Your task to perform on an android device: Search for seafood restaurants on Google Maps Image 0: 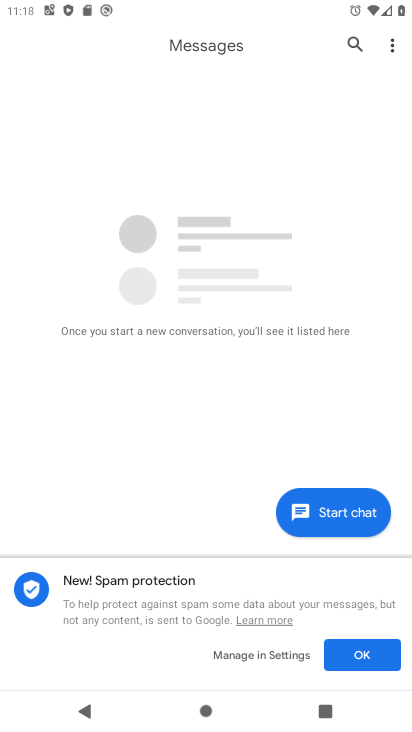
Step 0: press home button
Your task to perform on an android device: Search for seafood restaurants on Google Maps Image 1: 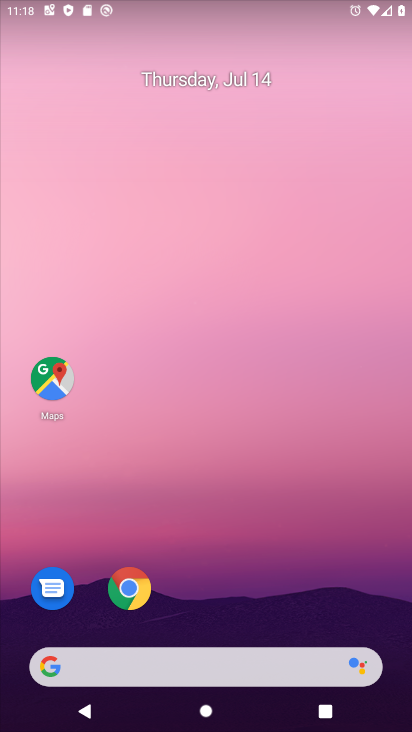
Step 1: click (51, 381)
Your task to perform on an android device: Search for seafood restaurants on Google Maps Image 2: 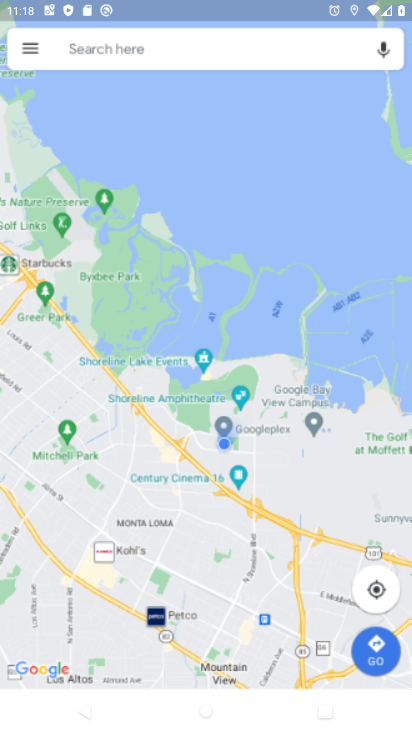
Step 2: click (128, 52)
Your task to perform on an android device: Search for seafood restaurants on Google Maps Image 3: 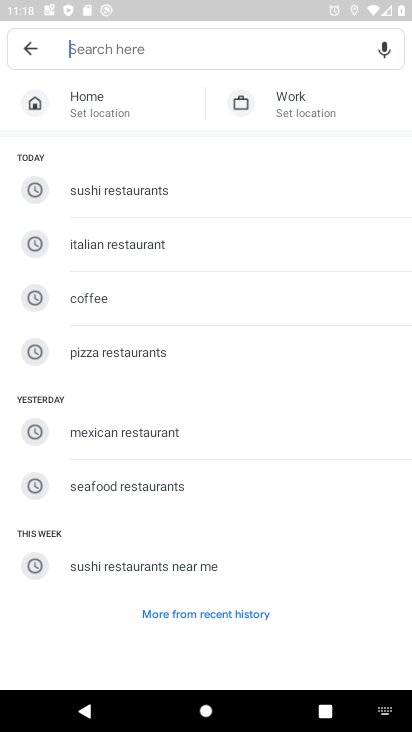
Step 3: type "seafood restaurants"
Your task to perform on an android device: Search for seafood restaurants on Google Maps Image 4: 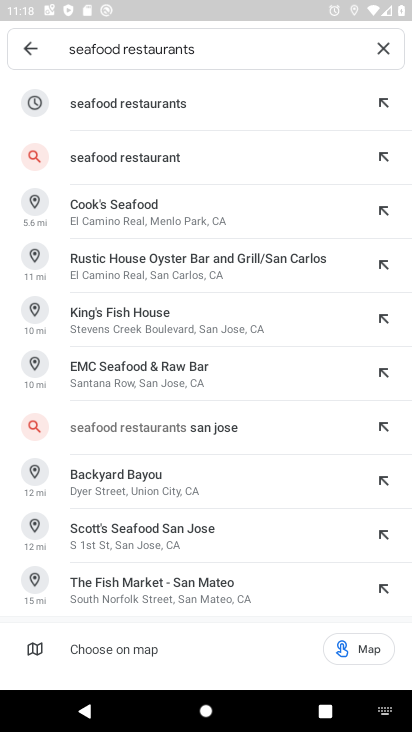
Step 4: click (115, 108)
Your task to perform on an android device: Search for seafood restaurants on Google Maps Image 5: 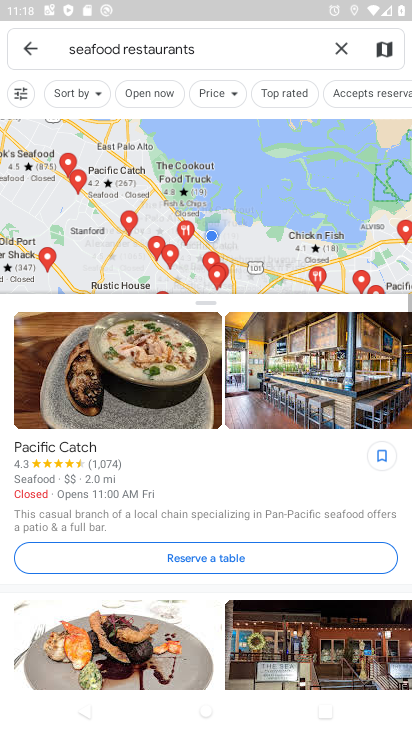
Step 5: task complete